Your task to perform on an android device: toggle airplane mode Image 0: 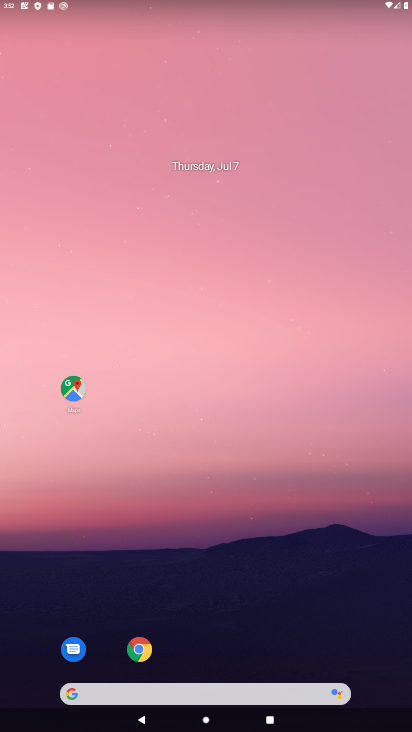
Step 0: drag from (366, 636) to (42, 0)
Your task to perform on an android device: toggle airplane mode Image 1: 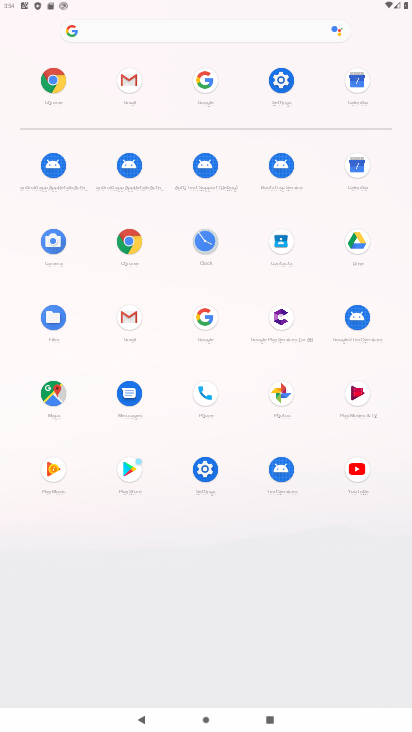
Step 1: drag from (194, 10) to (170, 613)
Your task to perform on an android device: toggle airplane mode Image 2: 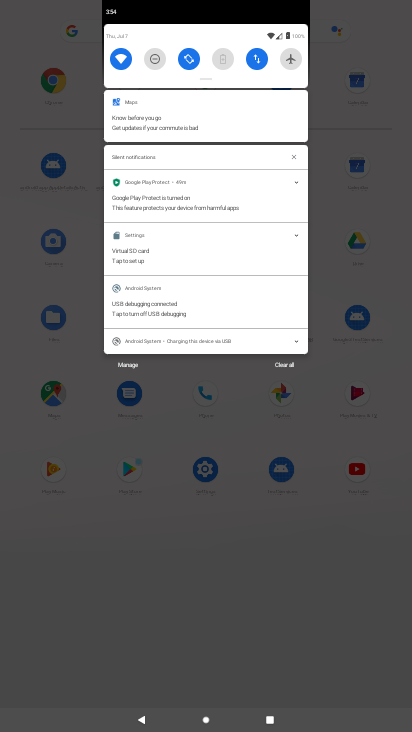
Step 2: click (286, 58)
Your task to perform on an android device: toggle airplane mode Image 3: 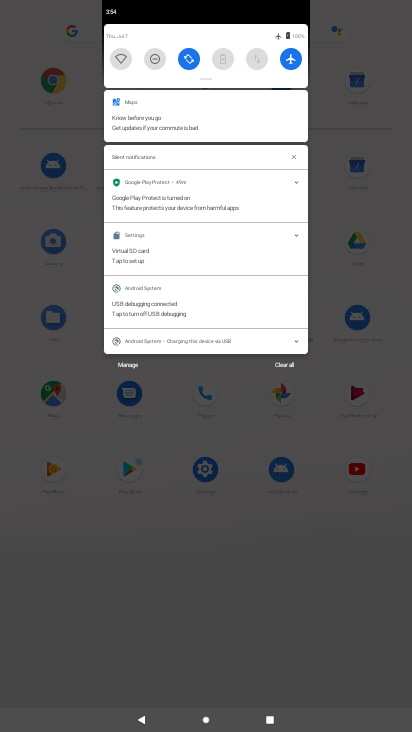
Step 3: task complete